Your task to perform on an android device: Open Google Maps Image 0: 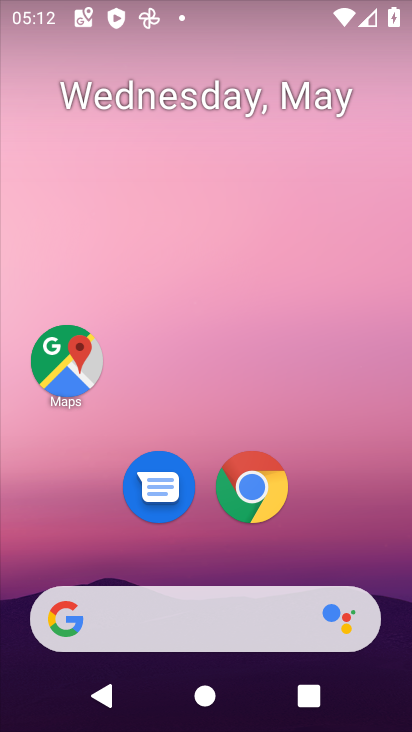
Step 0: drag from (325, 533) to (318, 96)
Your task to perform on an android device: Open Google Maps Image 1: 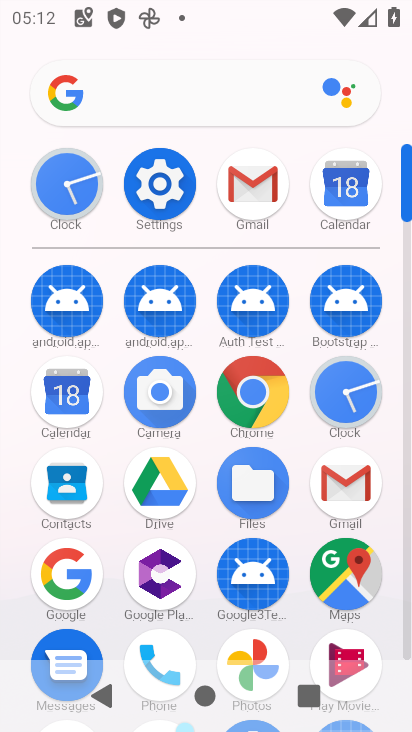
Step 1: click (337, 574)
Your task to perform on an android device: Open Google Maps Image 2: 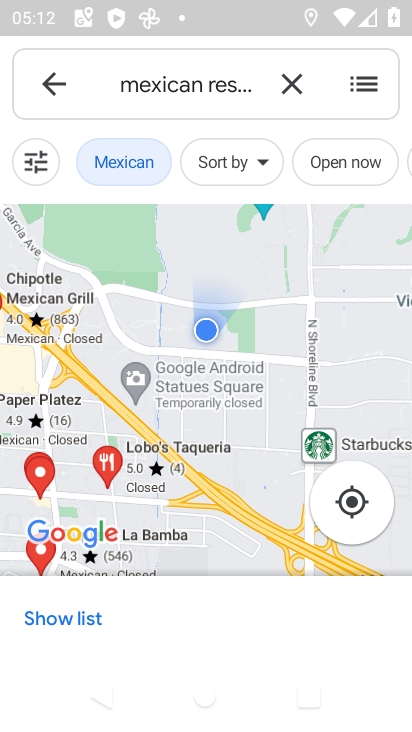
Step 2: click (279, 75)
Your task to perform on an android device: Open Google Maps Image 3: 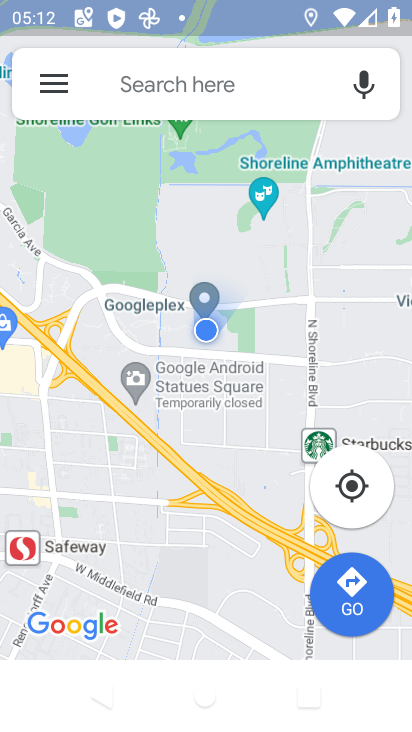
Step 3: task complete